Your task to perform on an android device: choose inbox layout in the gmail app Image 0: 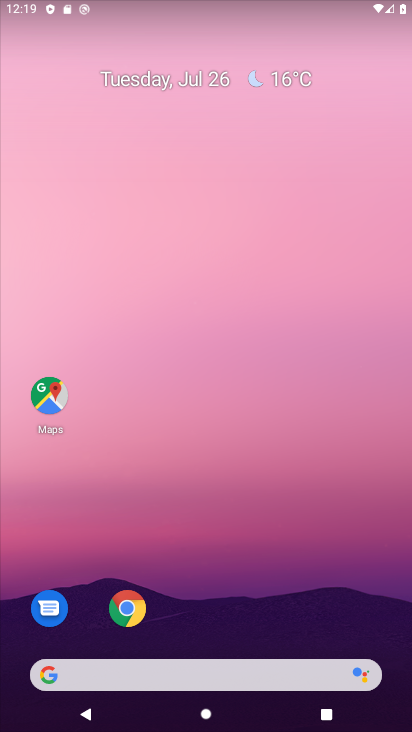
Step 0: task complete